Your task to perform on an android device: manage bookmarks in the chrome app Image 0: 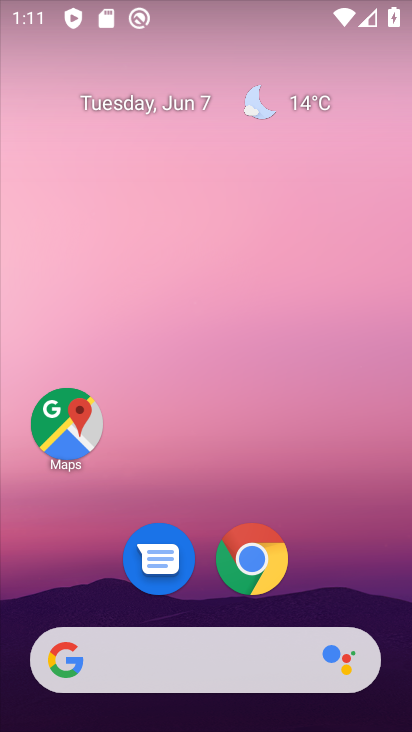
Step 0: drag from (353, 570) to (357, 3)
Your task to perform on an android device: manage bookmarks in the chrome app Image 1: 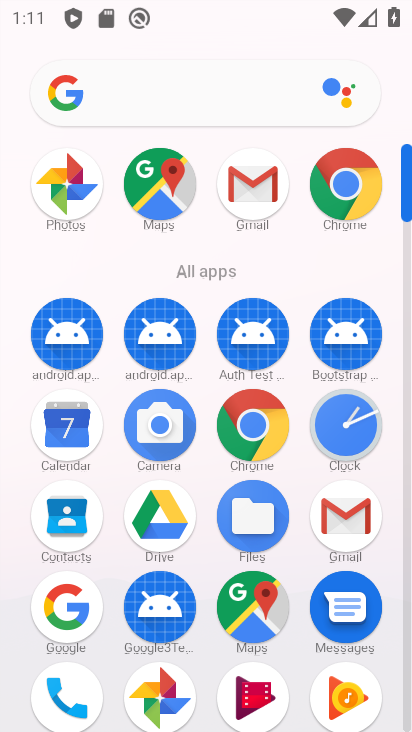
Step 1: click (342, 189)
Your task to perform on an android device: manage bookmarks in the chrome app Image 2: 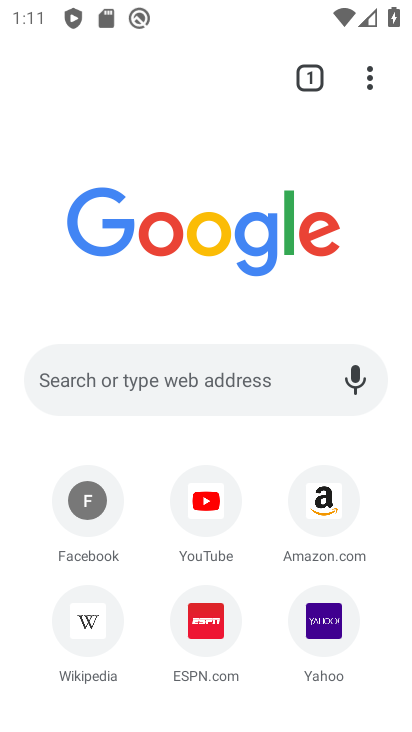
Step 2: drag from (357, 74) to (86, 291)
Your task to perform on an android device: manage bookmarks in the chrome app Image 3: 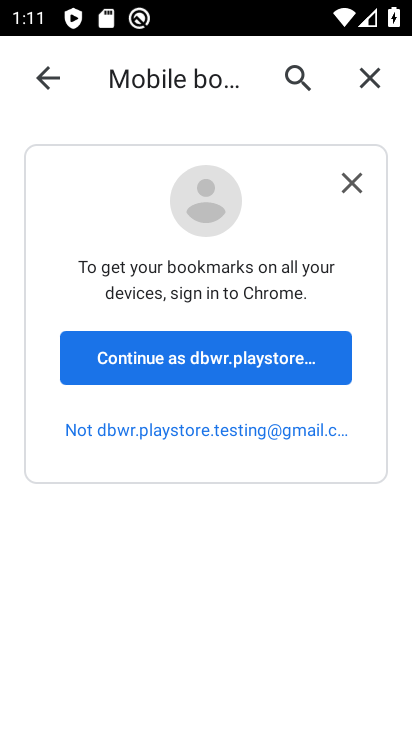
Step 3: click (216, 349)
Your task to perform on an android device: manage bookmarks in the chrome app Image 4: 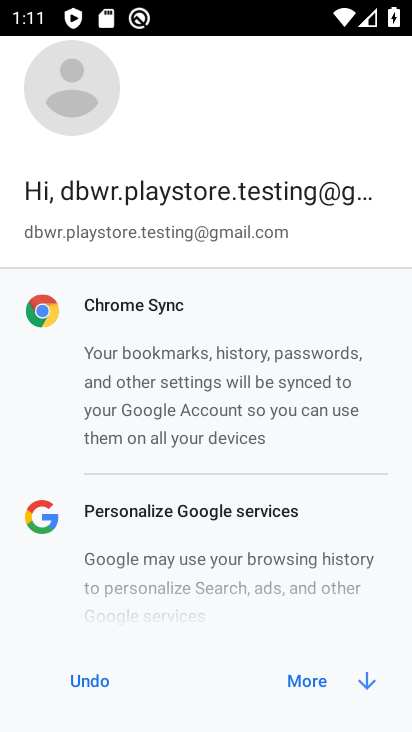
Step 4: click (328, 674)
Your task to perform on an android device: manage bookmarks in the chrome app Image 5: 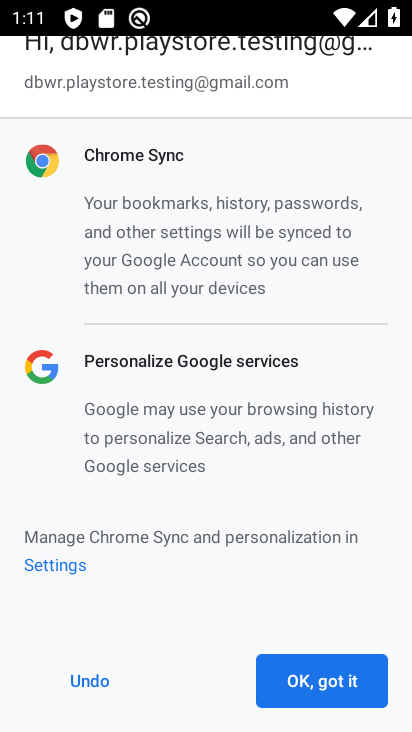
Step 5: click (324, 669)
Your task to perform on an android device: manage bookmarks in the chrome app Image 6: 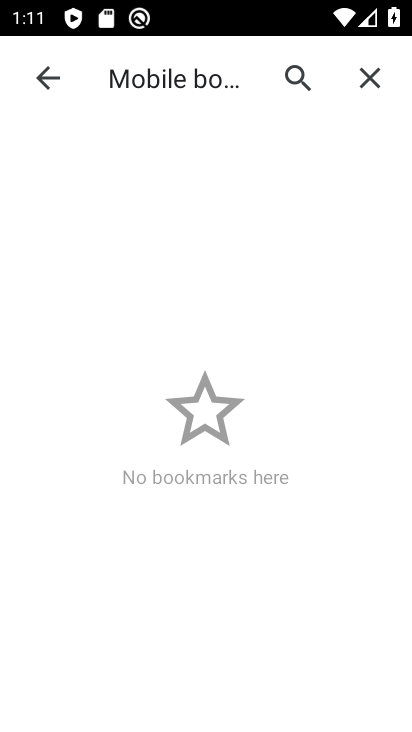
Step 6: task complete